Your task to perform on an android device: toggle improve location accuracy Image 0: 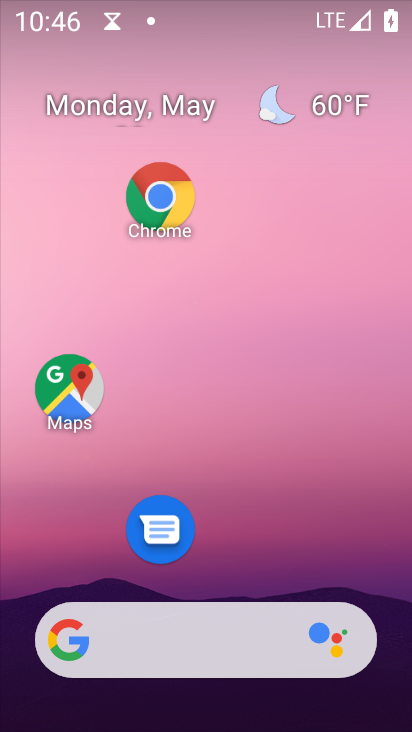
Step 0: drag from (246, 563) to (228, 142)
Your task to perform on an android device: toggle improve location accuracy Image 1: 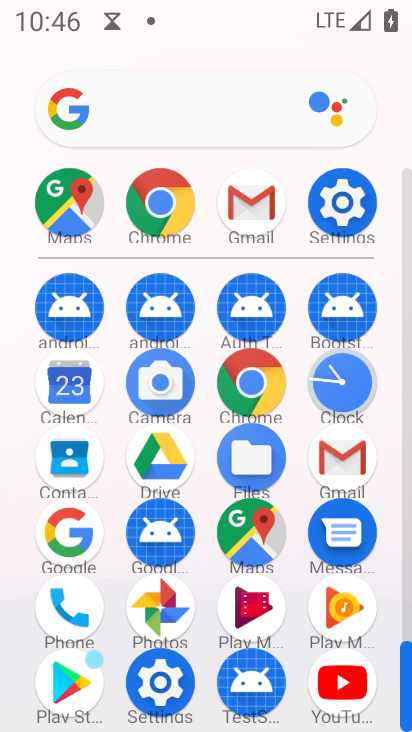
Step 1: click (341, 206)
Your task to perform on an android device: toggle improve location accuracy Image 2: 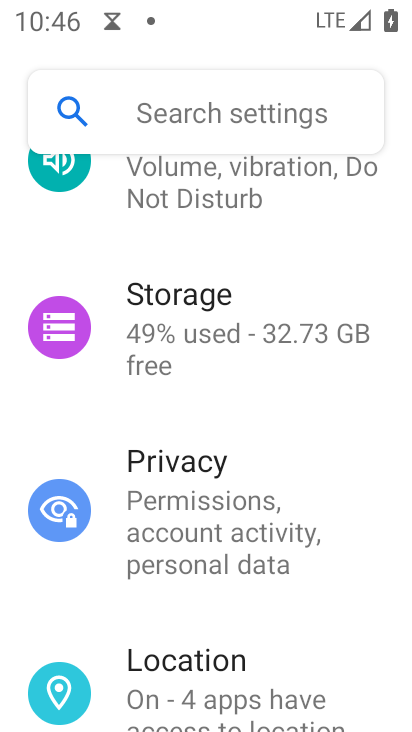
Step 2: drag from (284, 512) to (285, 330)
Your task to perform on an android device: toggle improve location accuracy Image 3: 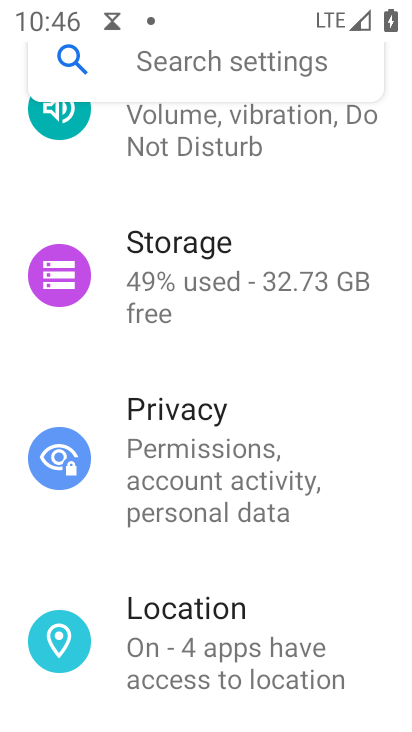
Step 3: click (208, 649)
Your task to perform on an android device: toggle improve location accuracy Image 4: 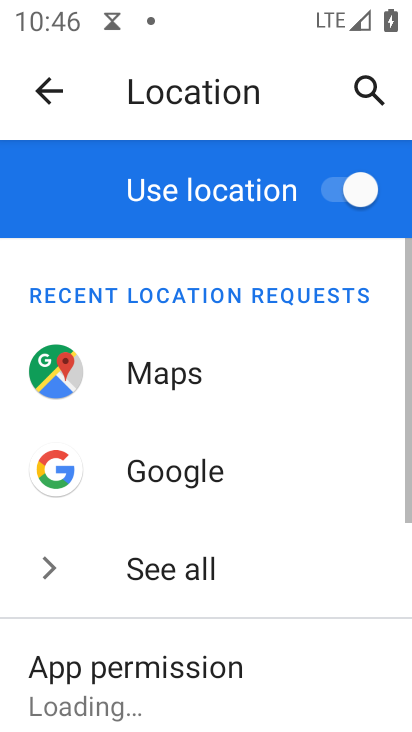
Step 4: drag from (214, 683) to (218, 326)
Your task to perform on an android device: toggle improve location accuracy Image 5: 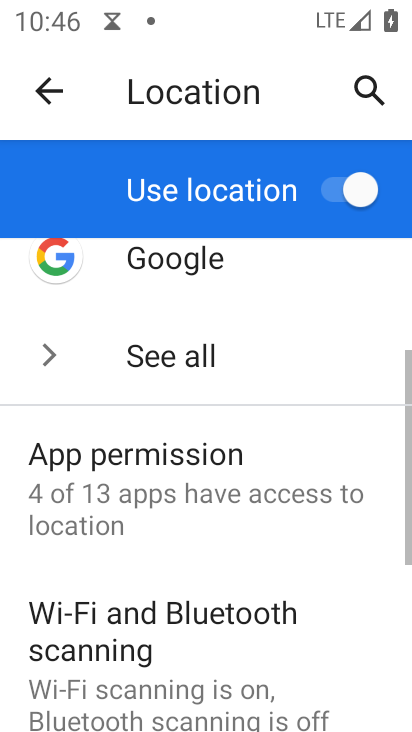
Step 5: drag from (263, 693) to (316, 345)
Your task to perform on an android device: toggle improve location accuracy Image 6: 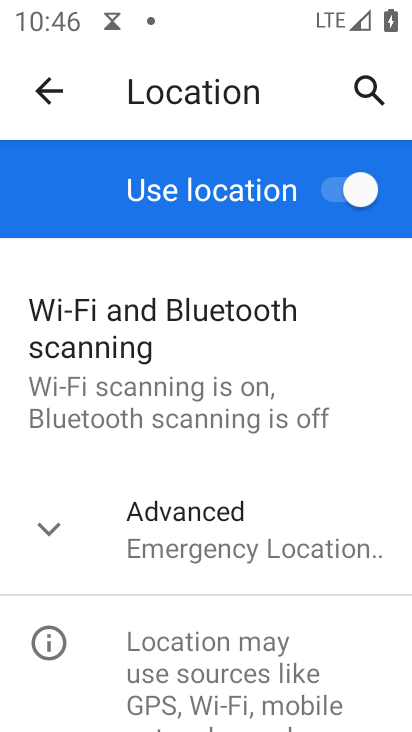
Step 6: click (174, 547)
Your task to perform on an android device: toggle improve location accuracy Image 7: 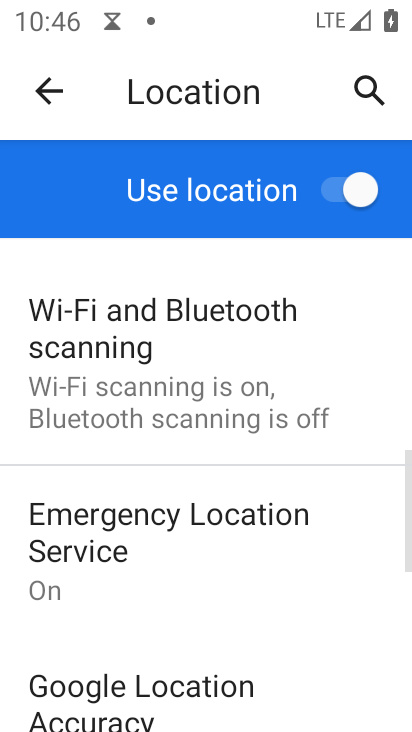
Step 7: drag from (181, 668) to (181, 426)
Your task to perform on an android device: toggle improve location accuracy Image 8: 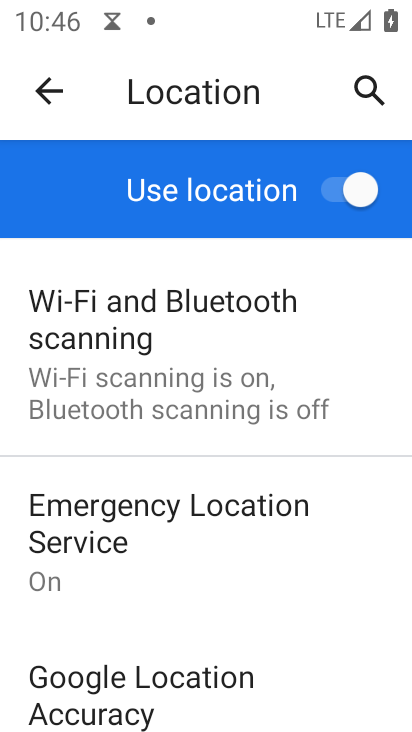
Step 8: click (111, 691)
Your task to perform on an android device: toggle improve location accuracy Image 9: 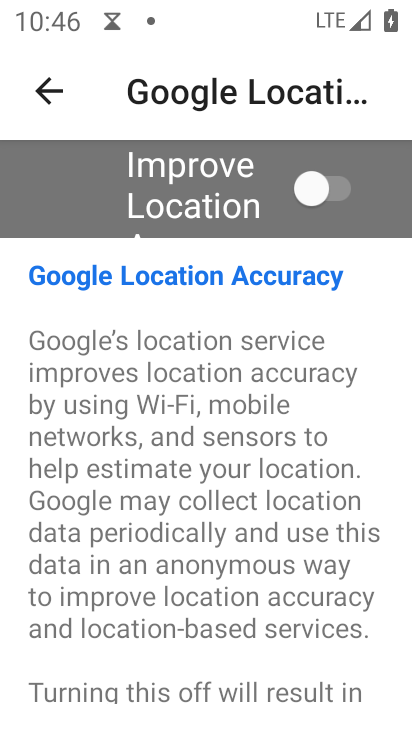
Step 9: click (337, 199)
Your task to perform on an android device: toggle improve location accuracy Image 10: 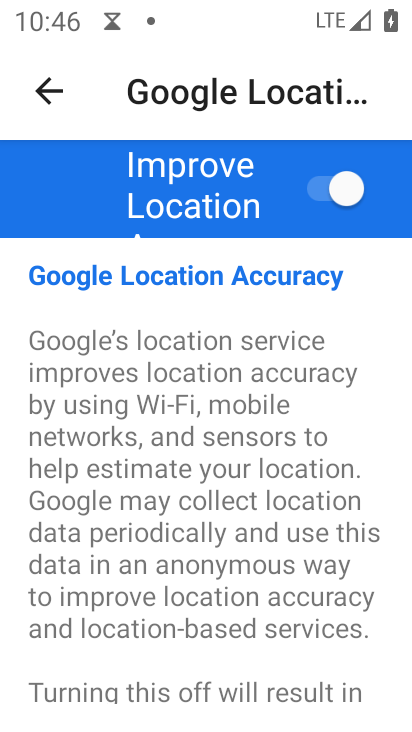
Step 10: task complete